Your task to perform on an android device: Go to Reddit.com Image 0: 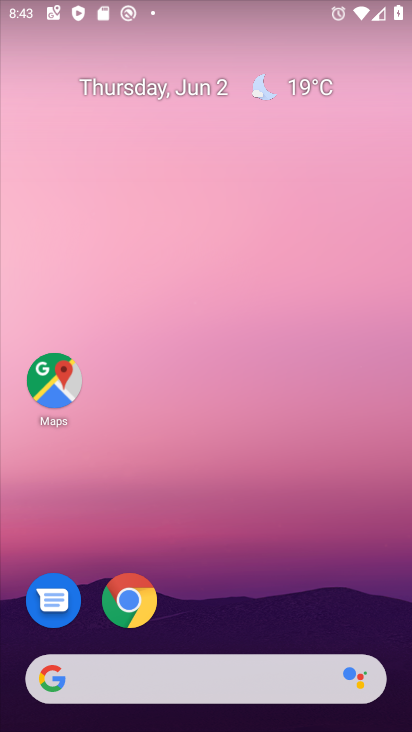
Step 0: drag from (375, 573) to (396, 152)
Your task to perform on an android device: Go to Reddit.com Image 1: 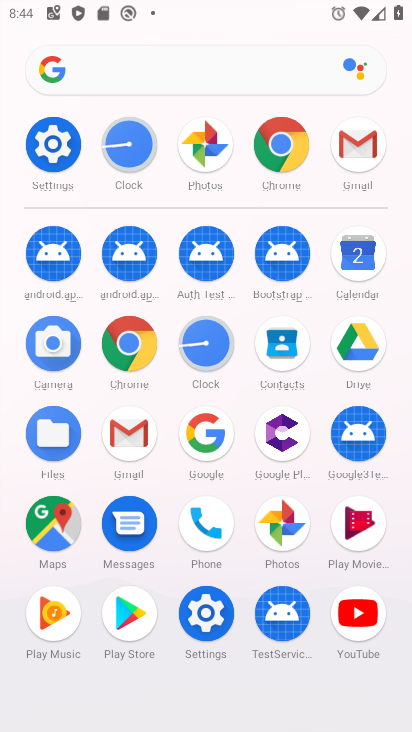
Step 1: click (142, 366)
Your task to perform on an android device: Go to Reddit.com Image 2: 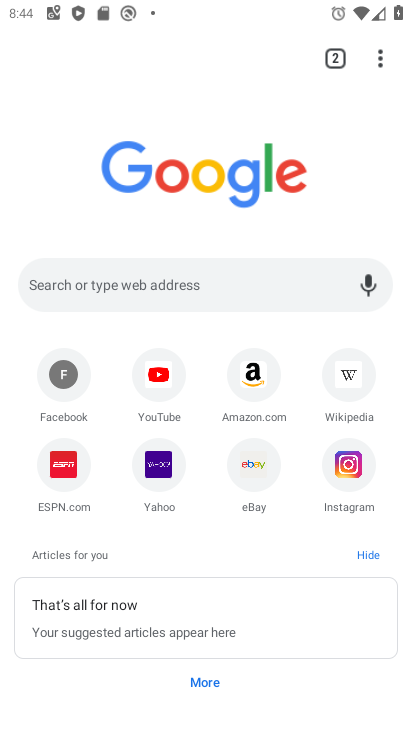
Step 2: click (201, 284)
Your task to perform on an android device: Go to Reddit.com Image 3: 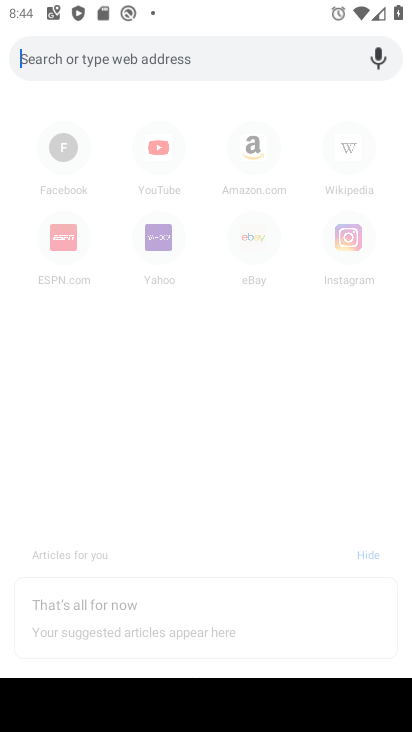
Step 3: type "reddit.com"
Your task to perform on an android device: Go to Reddit.com Image 4: 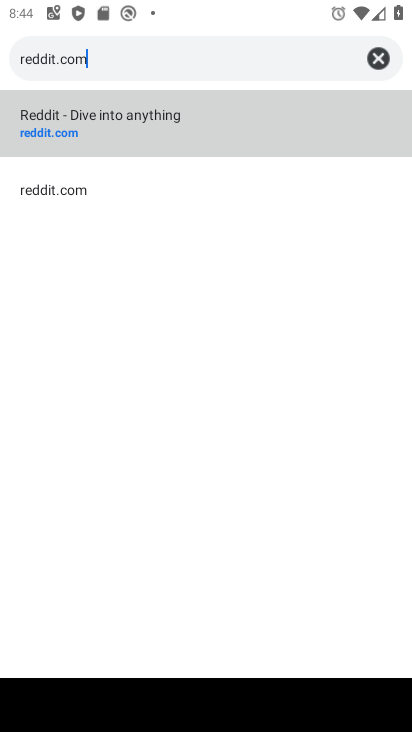
Step 4: click (103, 198)
Your task to perform on an android device: Go to Reddit.com Image 5: 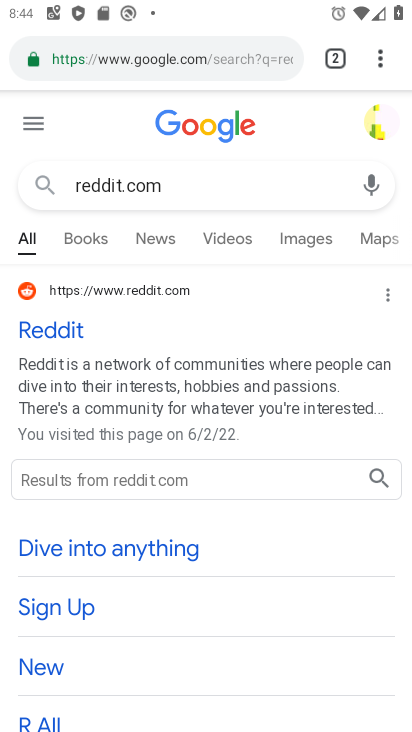
Step 5: task complete